Your task to perform on an android device: add a contact in the contacts app Image 0: 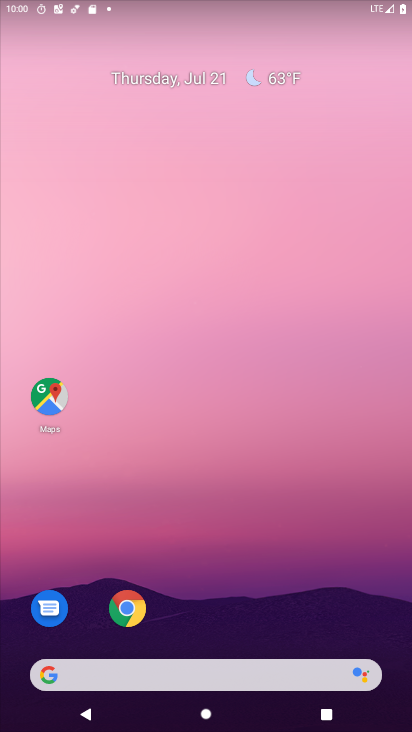
Step 0: drag from (202, 630) to (198, 266)
Your task to perform on an android device: add a contact in the contacts app Image 1: 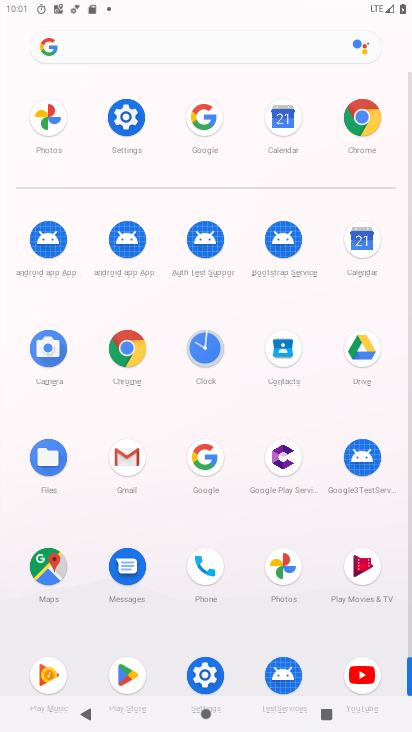
Step 1: click (284, 363)
Your task to perform on an android device: add a contact in the contacts app Image 2: 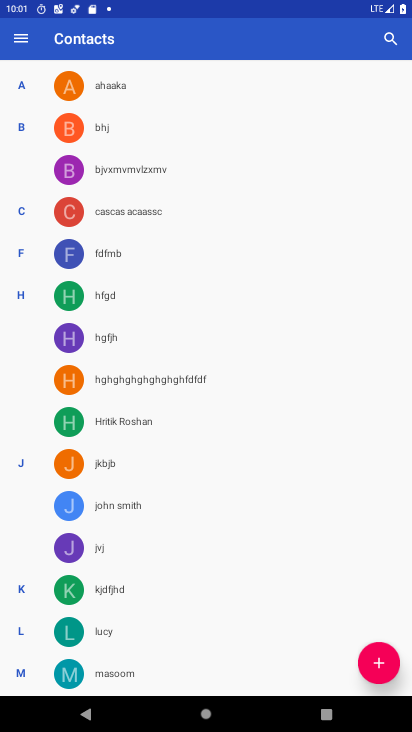
Step 2: click (371, 665)
Your task to perform on an android device: add a contact in the contacts app Image 3: 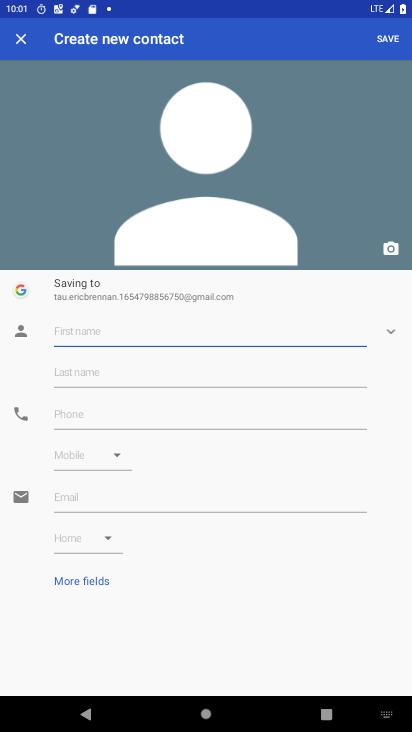
Step 3: type "jhgfdszdxfc"
Your task to perform on an android device: add a contact in the contacts app Image 4: 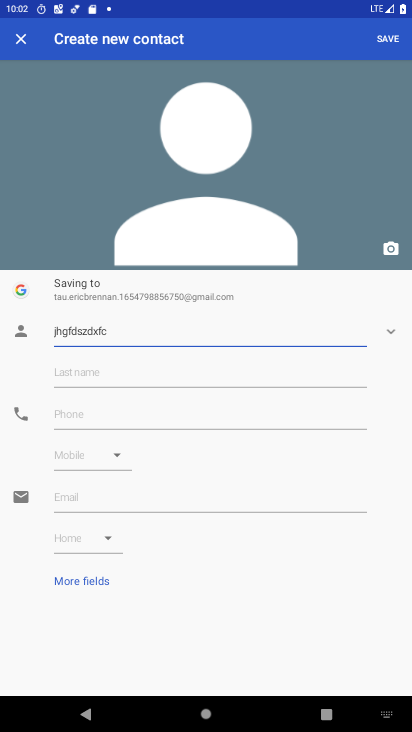
Step 4: click (199, 407)
Your task to perform on an android device: add a contact in the contacts app Image 5: 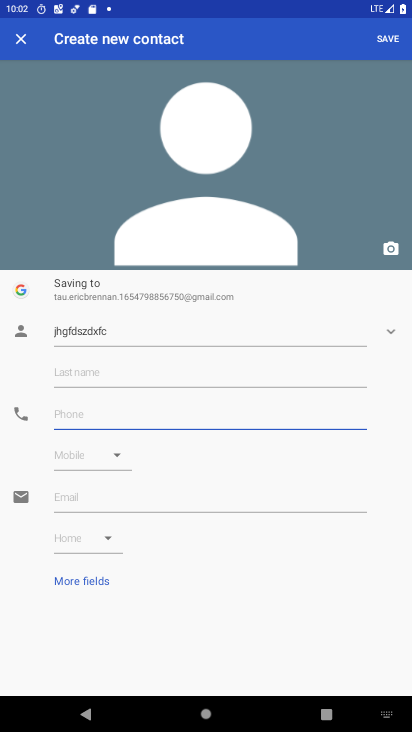
Step 5: type "098765438"
Your task to perform on an android device: add a contact in the contacts app Image 6: 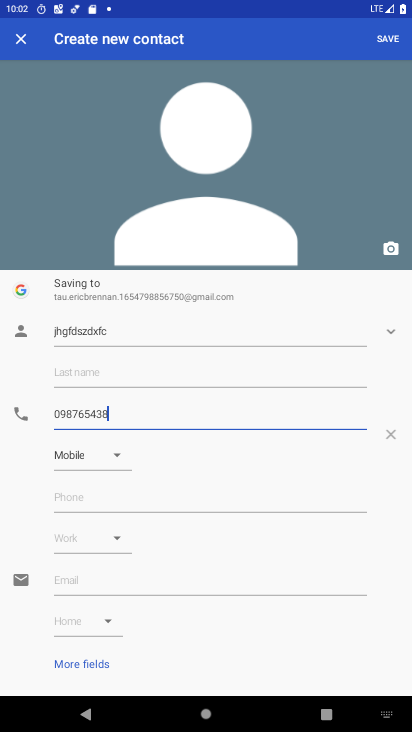
Step 6: click (390, 35)
Your task to perform on an android device: add a contact in the contacts app Image 7: 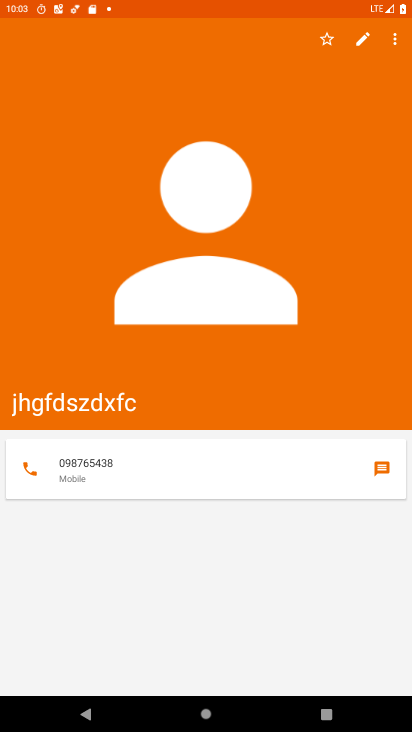
Step 7: task complete